Your task to perform on an android device: Open privacy settings Image 0: 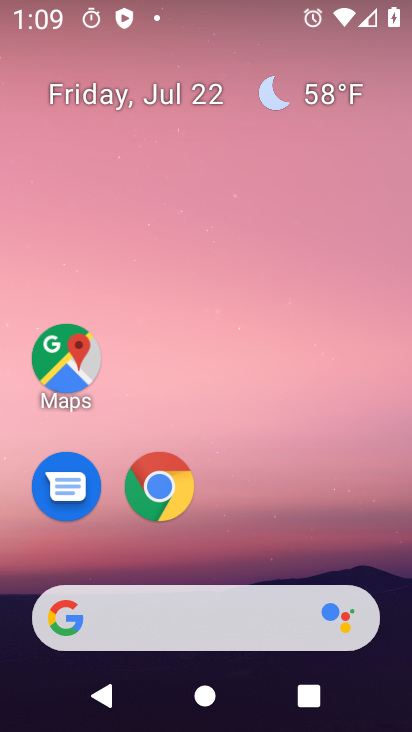
Step 0: press home button
Your task to perform on an android device: Open privacy settings Image 1: 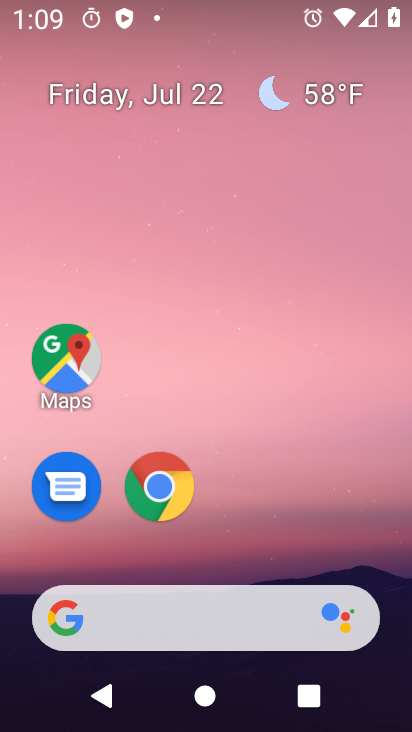
Step 1: drag from (376, 549) to (381, 194)
Your task to perform on an android device: Open privacy settings Image 2: 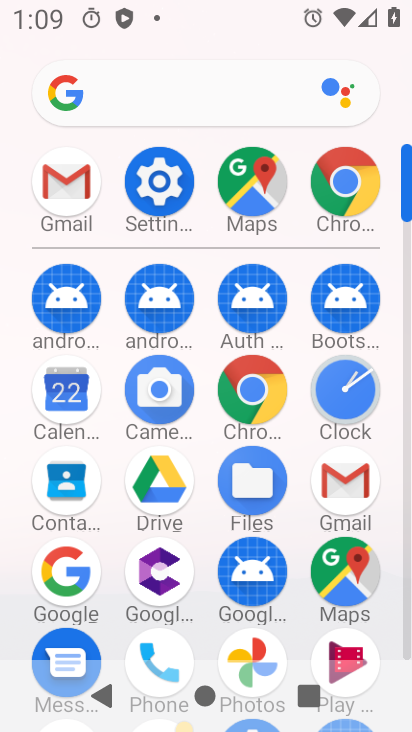
Step 2: click (169, 193)
Your task to perform on an android device: Open privacy settings Image 3: 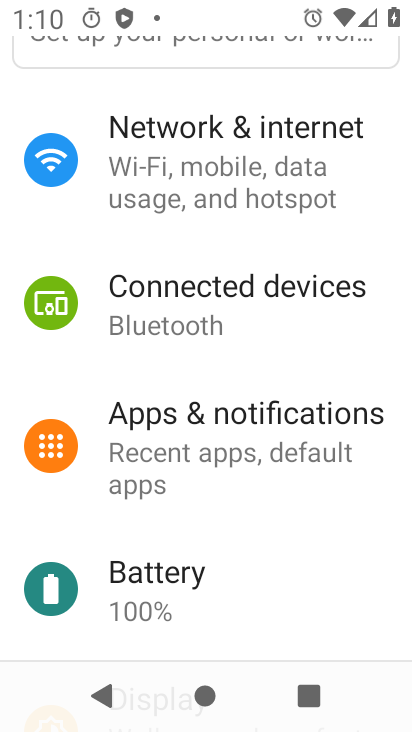
Step 3: drag from (353, 479) to (363, 424)
Your task to perform on an android device: Open privacy settings Image 4: 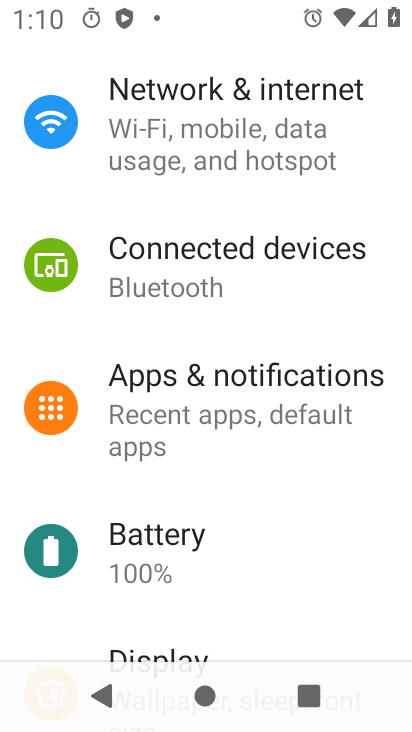
Step 4: drag from (355, 498) to (357, 410)
Your task to perform on an android device: Open privacy settings Image 5: 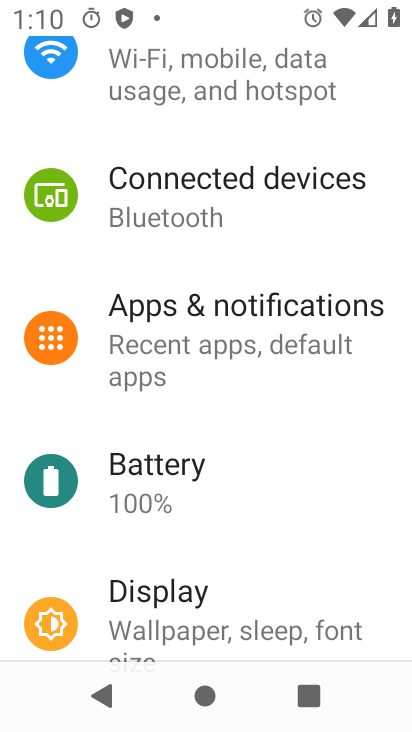
Step 5: drag from (356, 510) to (356, 413)
Your task to perform on an android device: Open privacy settings Image 6: 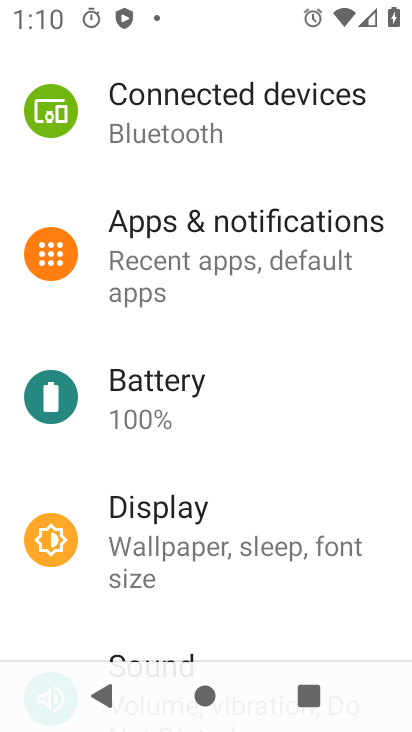
Step 6: drag from (347, 541) to (358, 429)
Your task to perform on an android device: Open privacy settings Image 7: 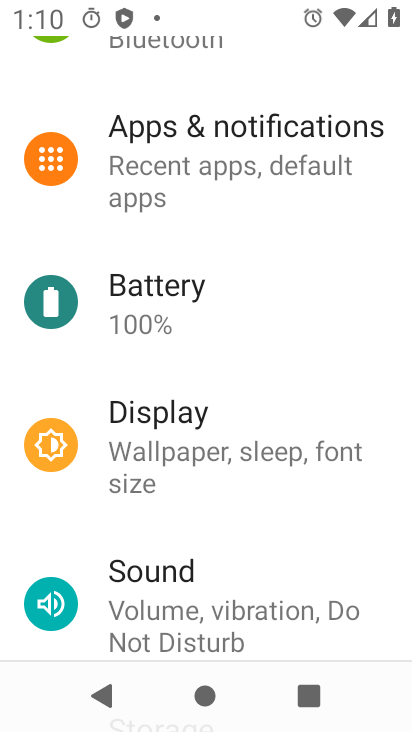
Step 7: drag from (355, 536) to (355, 425)
Your task to perform on an android device: Open privacy settings Image 8: 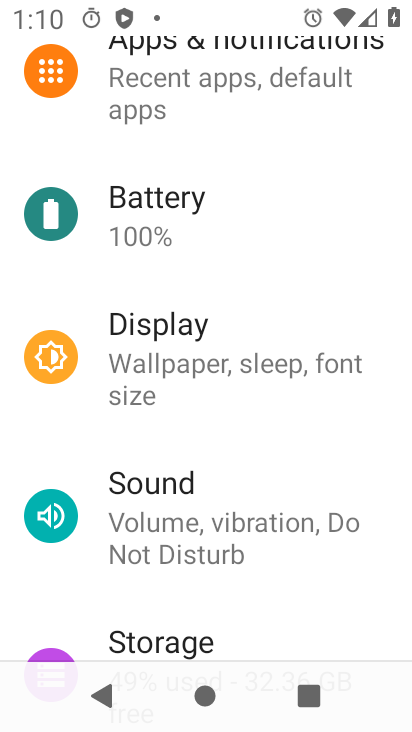
Step 8: drag from (345, 563) to (345, 443)
Your task to perform on an android device: Open privacy settings Image 9: 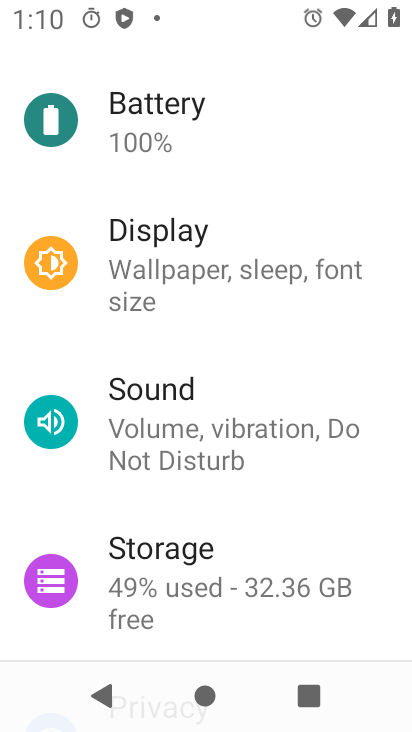
Step 9: drag from (338, 559) to (343, 453)
Your task to perform on an android device: Open privacy settings Image 10: 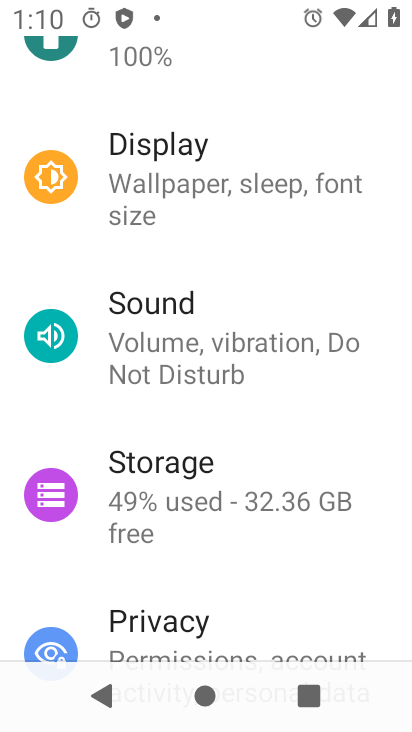
Step 10: drag from (348, 567) to (350, 459)
Your task to perform on an android device: Open privacy settings Image 11: 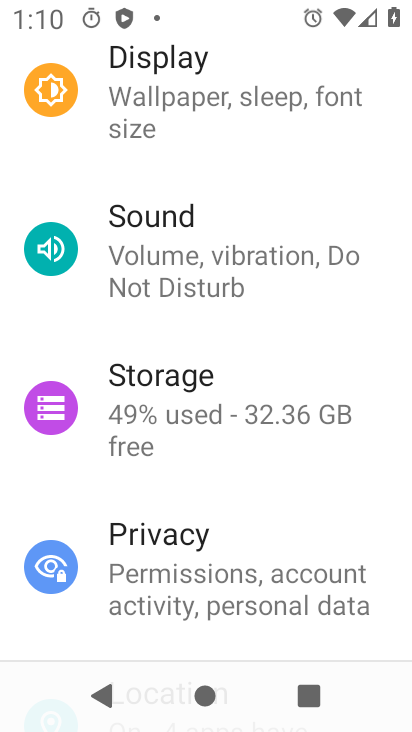
Step 11: drag from (350, 591) to (350, 449)
Your task to perform on an android device: Open privacy settings Image 12: 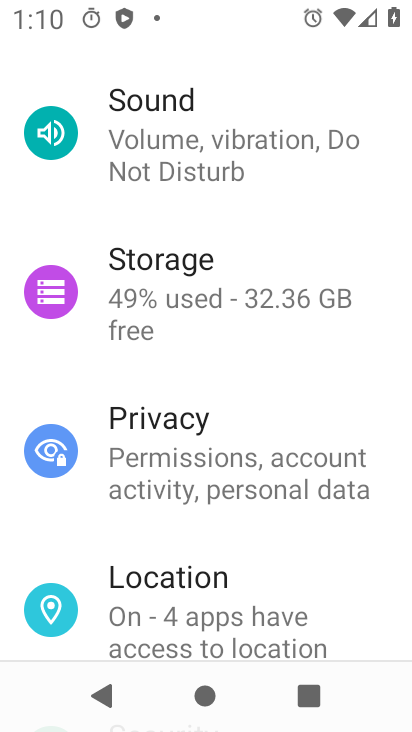
Step 12: drag from (339, 568) to (339, 429)
Your task to perform on an android device: Open privacy settings Image 13: 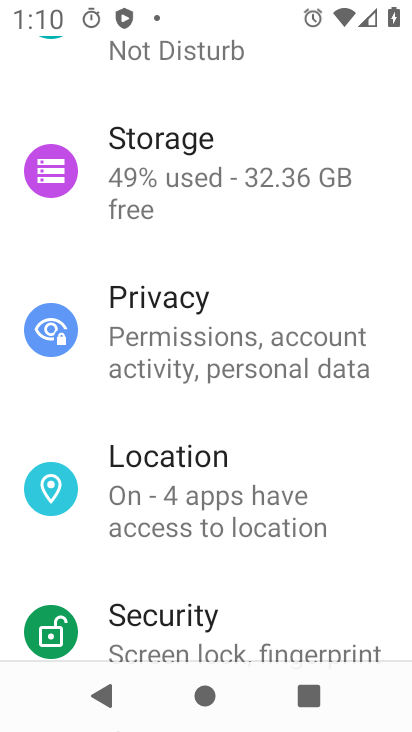
Step 13: drag from (343, 590) to (352, 443)
Your task to perform on an android device: Open privacy settings Image 14: 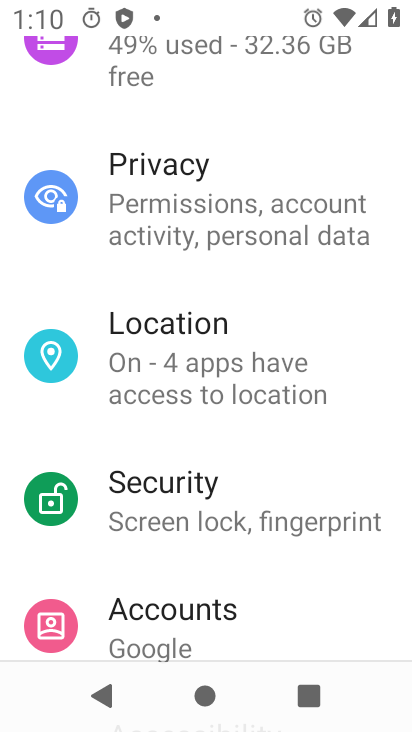
Step 14: drag from (343, 585) to (348, 453)
Your task to perform on an android device: Open privacy settings Image 15: 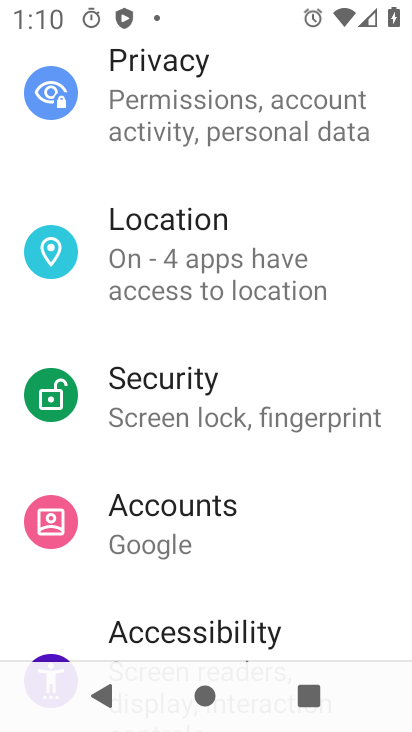
Step 15: drag from (318, 215) to (325, 353)
Your task to perform on an android device: Open privacy settings Image 16: 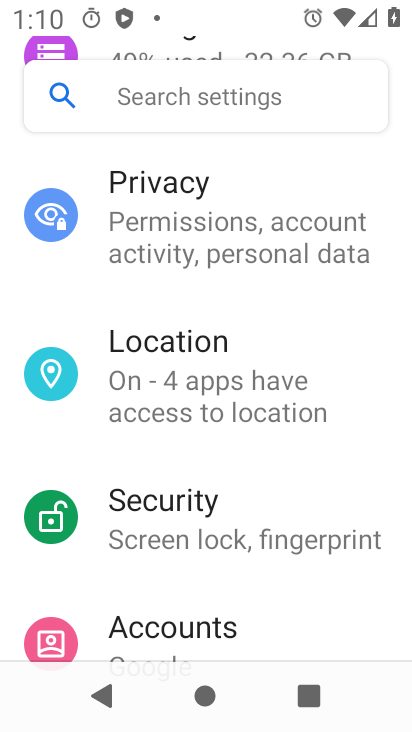
Step 16: drag from (373, 141) to (377, 332)
Your task to perform on an android device: Open privacy settings Image 17: 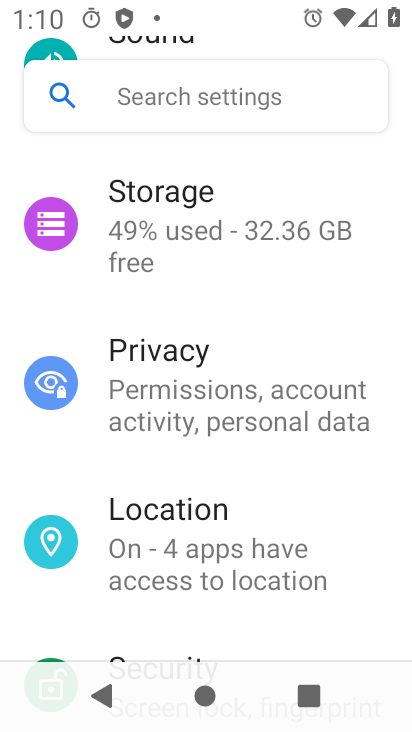
Step 17: click (301, 401)
Your task to perform on an android device: Open privacy settings Image 18: 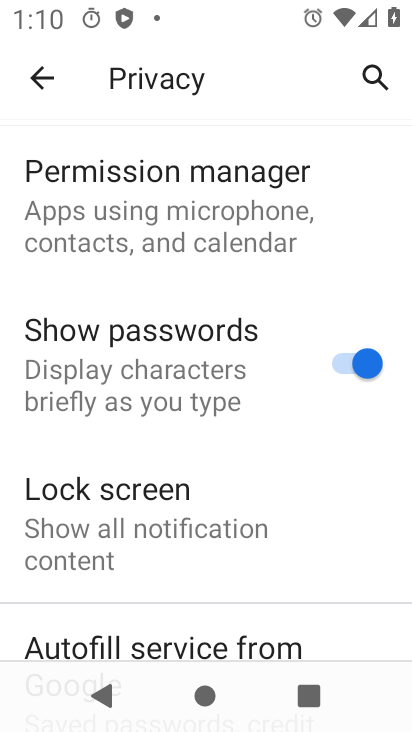
Step 18: task complete